Your task to perform on an android device: Turn on the flashlight Image 0: 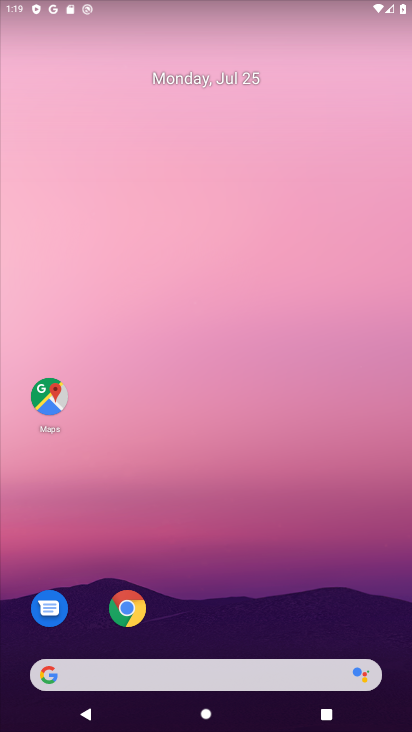
Step 0: drag from (163, 671) to (163, 120)
Your task to perform on an android device: Turn on the flashlight Image 1: 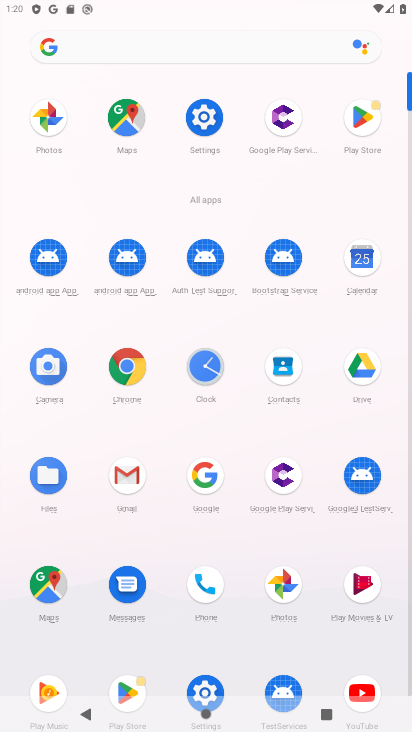
Step 1: click (204, 115)
Your task to perform on an android device: Turn on the flashlight Image 2: 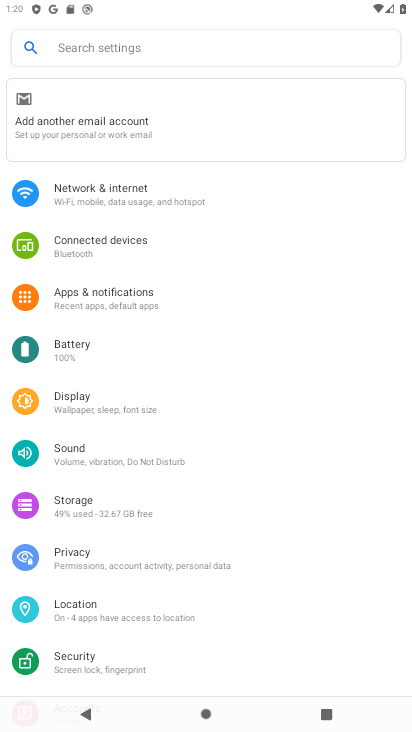
Step 2: click (79, 395)
Your task to perform on an android device: Turn on the flashlight Image 3: 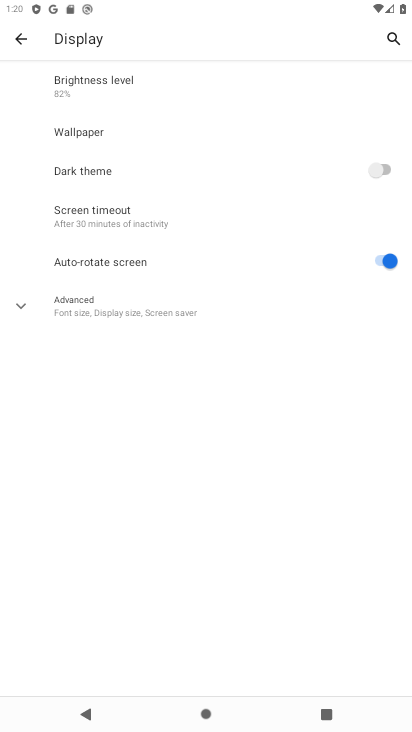
Step 3: click (391, 37)
Your task to perform on an android device: Turn on the flashlight Image 4: 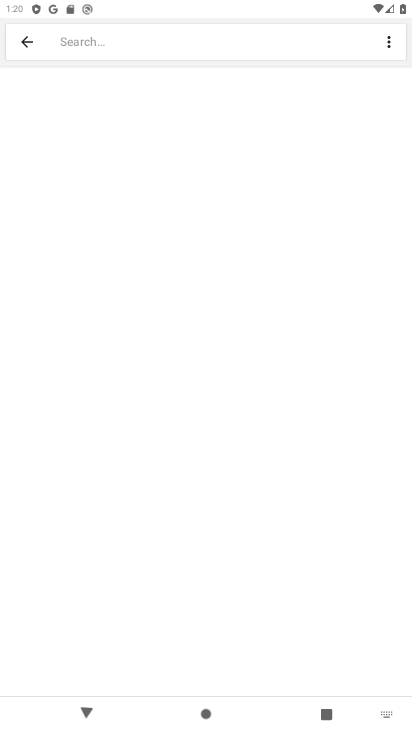
Step 4: click (391, 37)
Your task to perform on an android device: Turn on the flashlight Image 5: 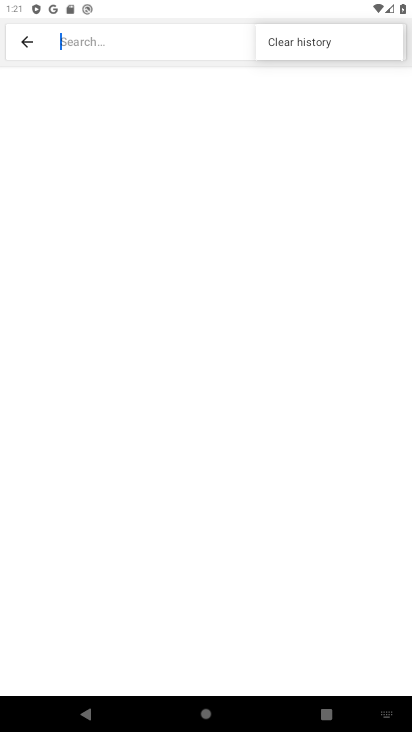
Step 5: type "flashlight"
Your task to perform on an android device: Turn on the flashlight Image 6: 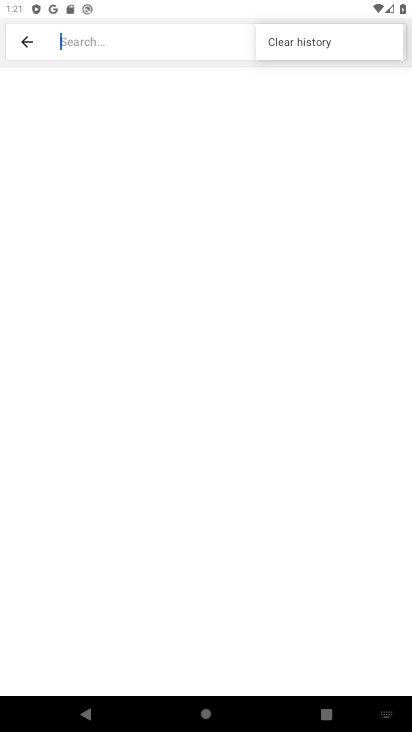
Step 6: click (113, 45)
Your task to perform on an android device: Turn on the flashlight Image 7: 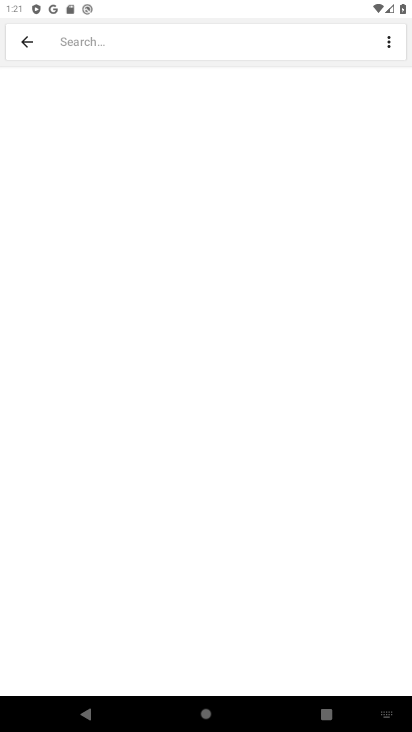
Step 7: type "flashlight"
Your task to perform on an android device: Turn on the flashlight Image 8: 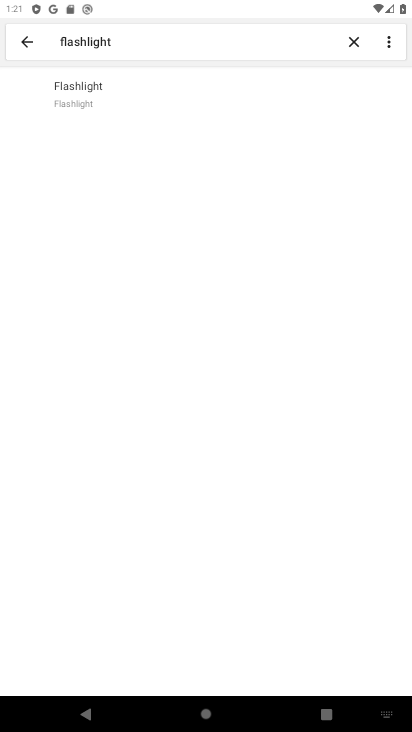
Step 8: task complete